Your task to perform on an android device: Is it going to rain tomorrow? Image 0: 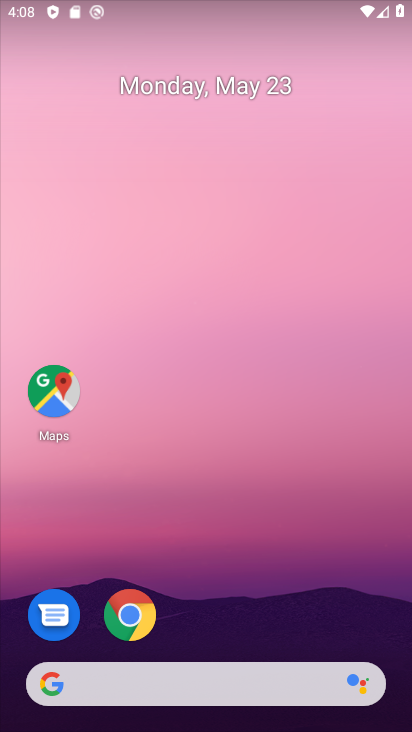
Step 0: click (271, 689)
Your task to perform on an android device: Is it going to rain tomorrow? Image 1: 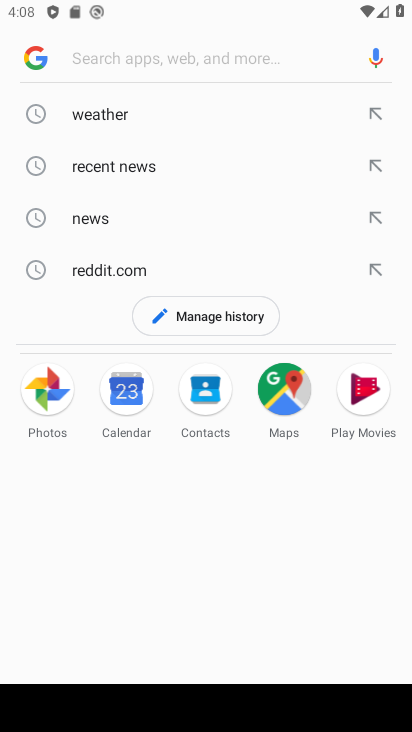
Step 1: click (117, 115)
Your task to perform on an android device: Is it going to rain tomorrow? Image 2: 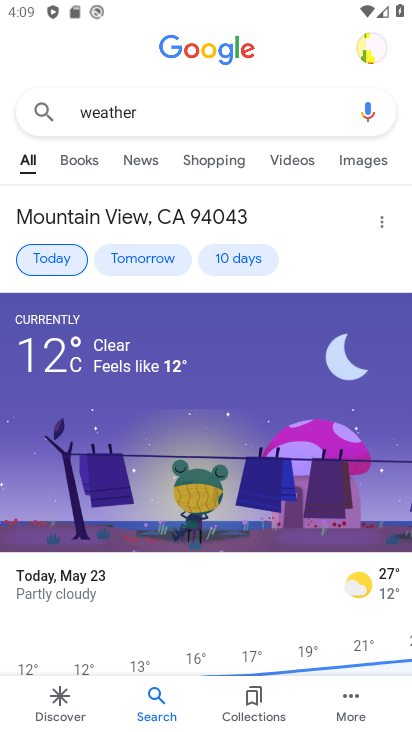
Step 2: click (65, 260)
Your task to perform on an android device: Is it going to rain tomorrow? Image 3: 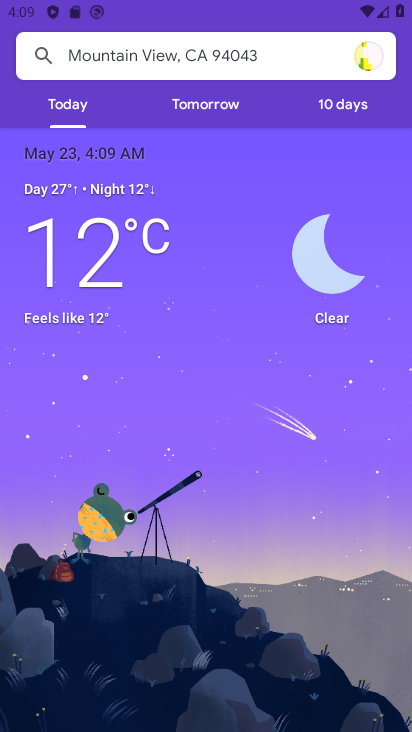
Step 3: task complete